Your task to perform on an android device: star an email in the gmail app Image 0: 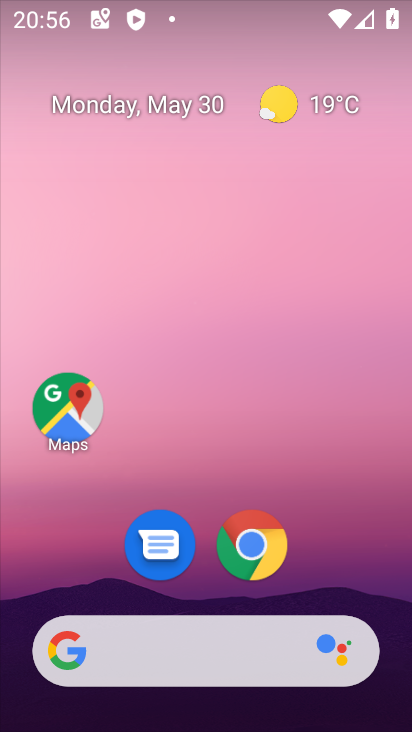
Step 0: drag from (329, 566) to (303, 216)
Your task to perform on an android device: star an email in the gmail app Image 1: 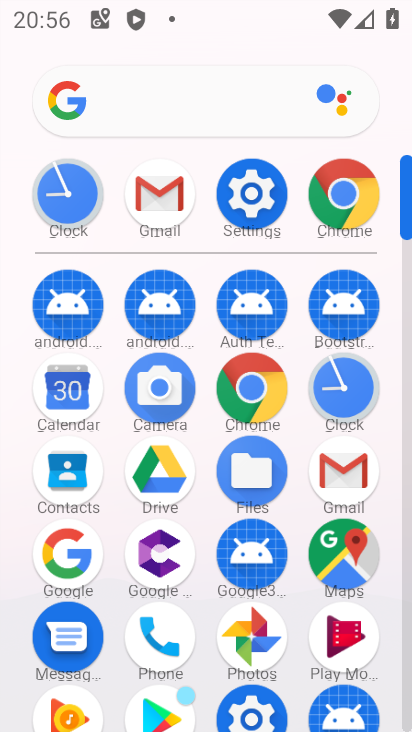
Step 1: click (148, 203)
Your task to perform on an android device: star an email in the gmail app Image 2: 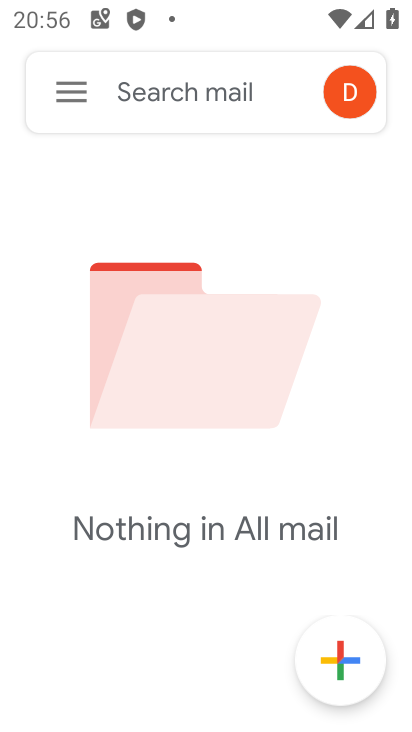
Step 2: click (71, 84)
Your task to perform on an android device: star an email in the gmail app Image 3: 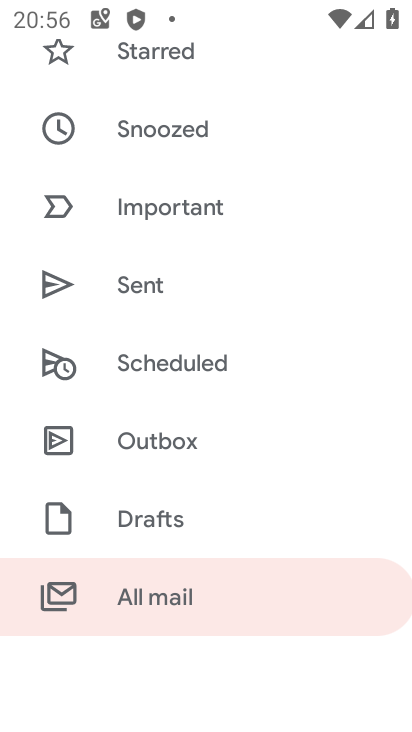
Step 3: click (228, 598)
Your task to perform on an android device: star an email in the gmail app Image 4: 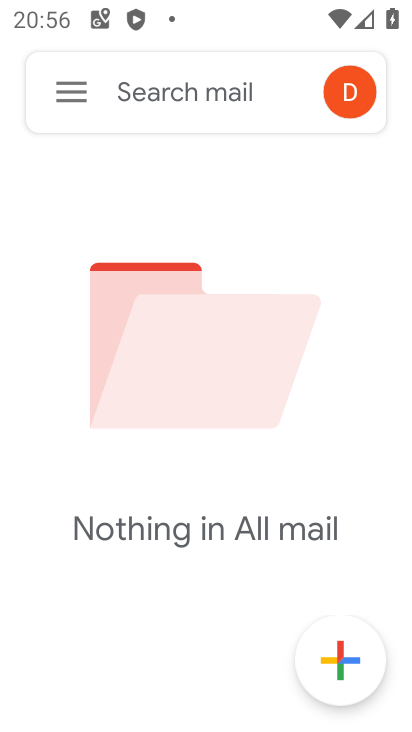
Step 4: task complete